Your task to perform on an android device: turn on priority inbox in the gmail app Image 0: 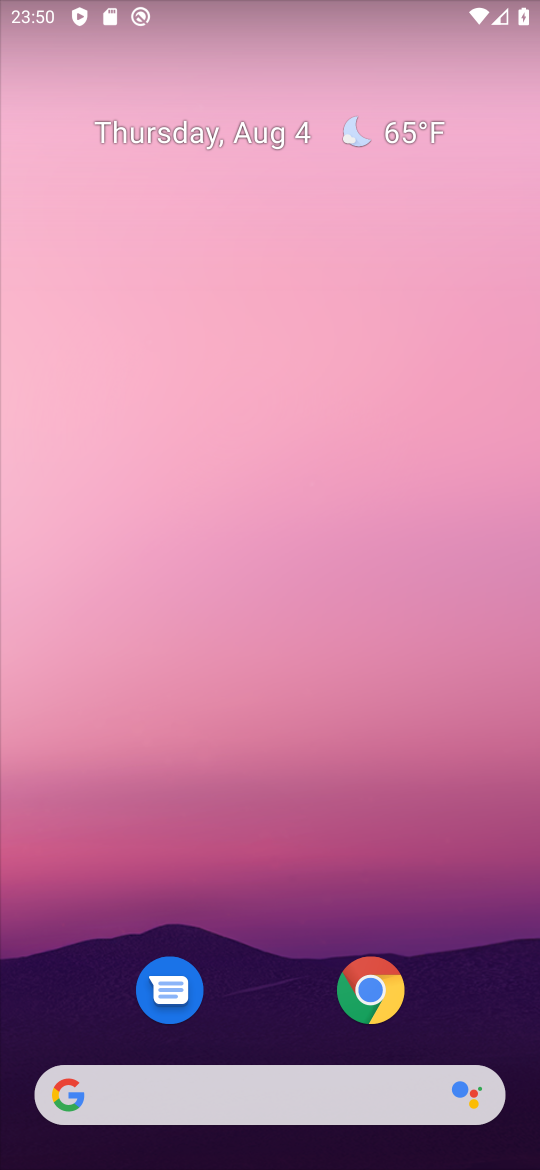
Step 0: drag from (507, 1009) to (363, 242)
Your task to perform on an android device: turn on priority inbox in the gmail app Image 1: 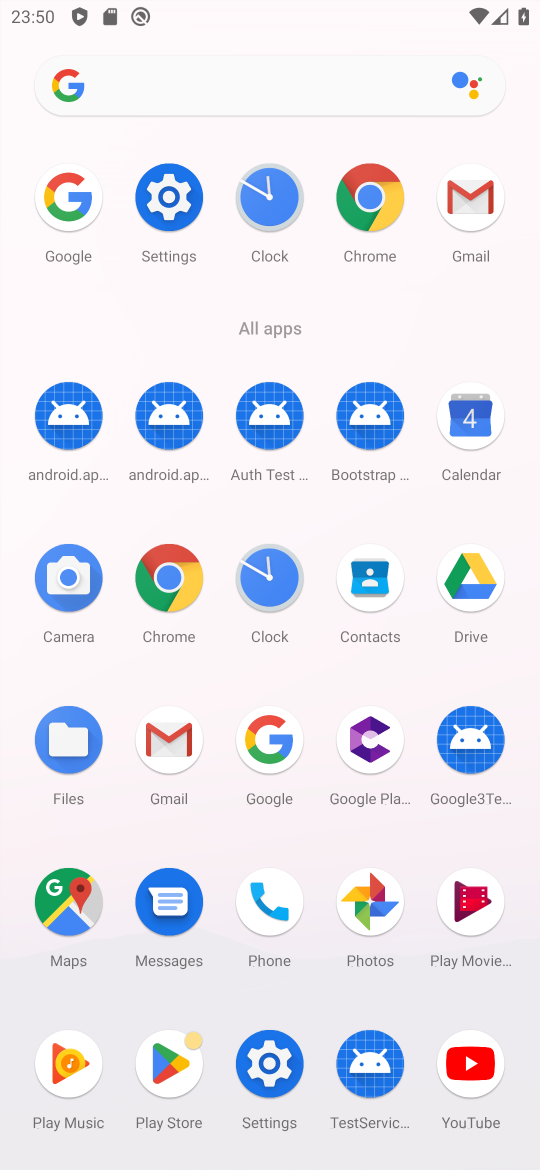
Step 1: click (465, 192)
Your task to perform on an android device: turn on priority inbox in the gmail app Image 2: 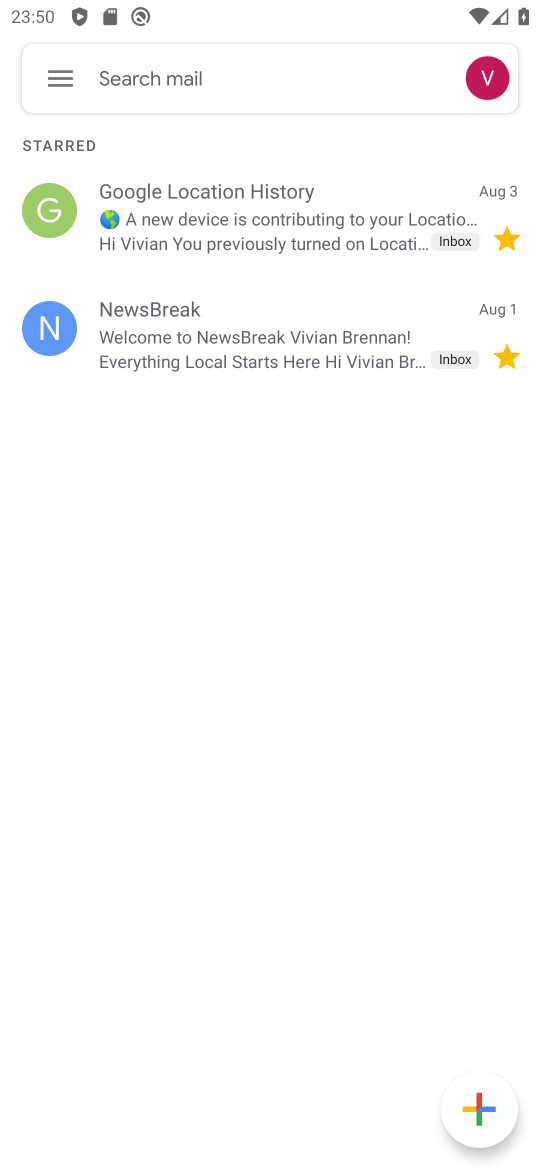
Step 2: click (48, 79)
Your task to perform on an android device: turn on priority inbox in the gmail app Image 3: 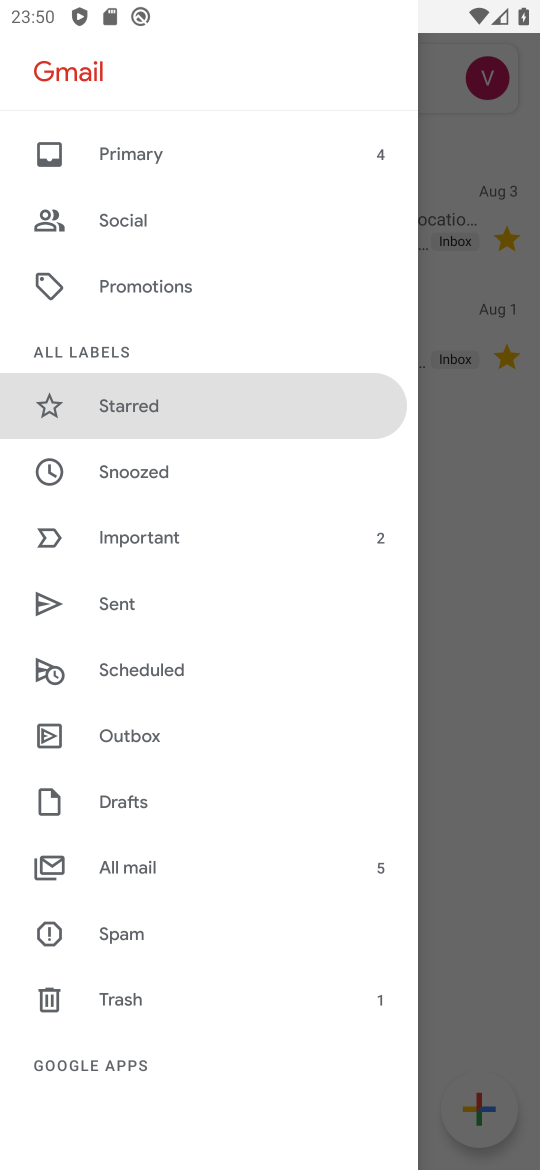
Step 3: drag from (165, 685) to (207, 196)
Your task to perform on an android device: turn on priority inbox in the gmail app Image 4: 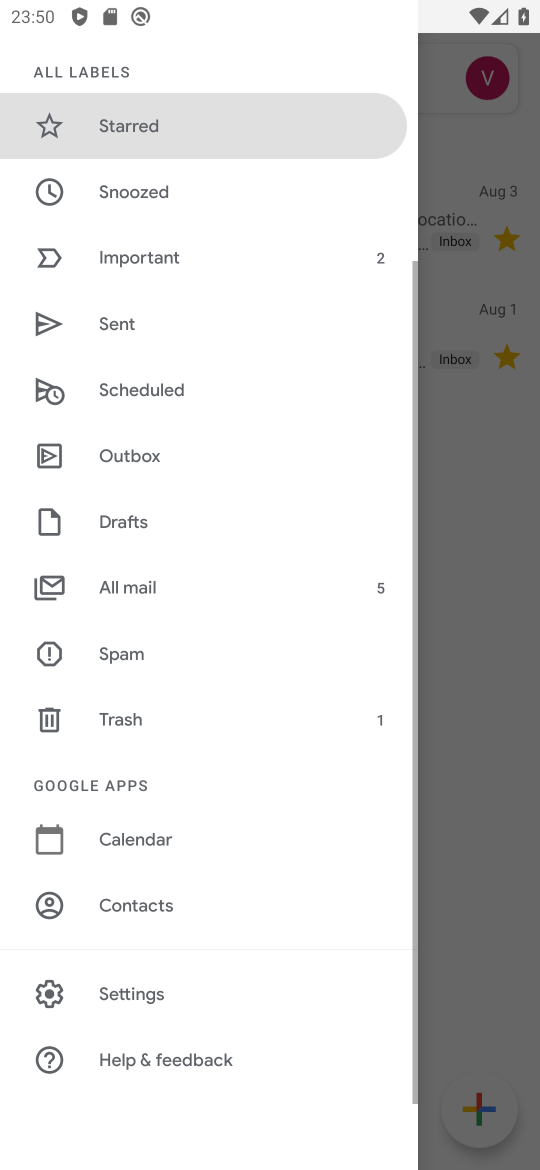
Step 4: click (175, 1011)
Your task to perform on an android device: turn on priority inbox in the gmail app Image 5: 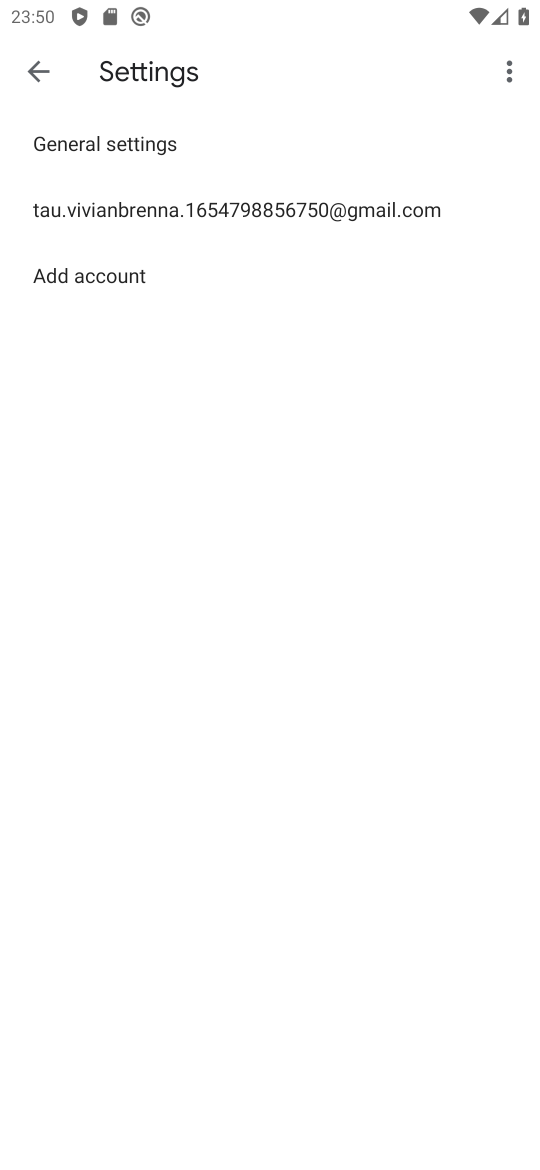
Step 5: click (252, 201)
Your task to perform on an android device: turn on priority inbox in the gmail app Image 6: 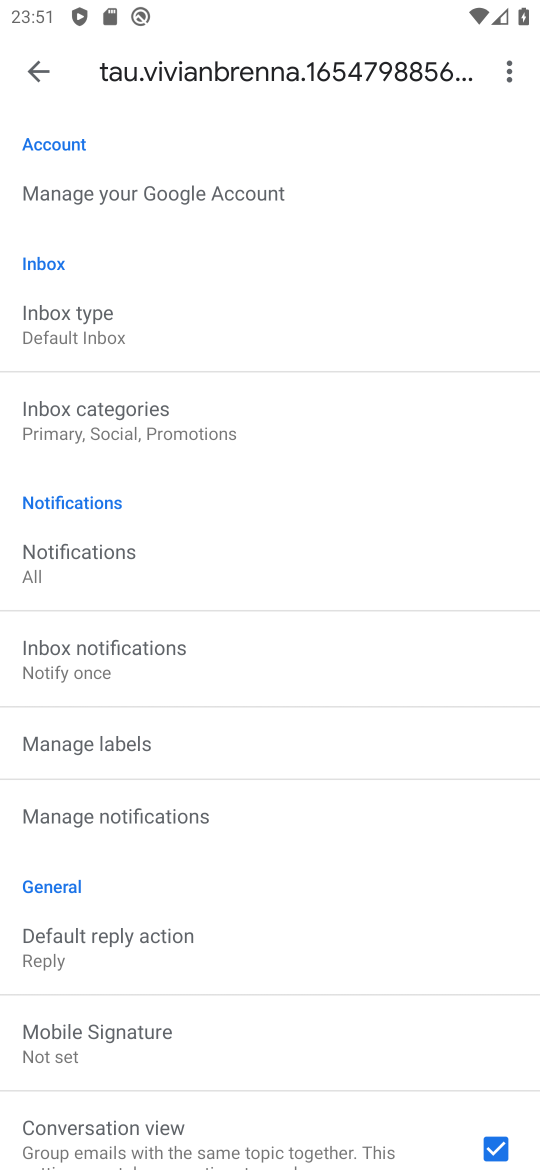
Step 6: click (158, 332)
Your task to perform on an android device: turn on priority inbox in the gmail app Image 7: 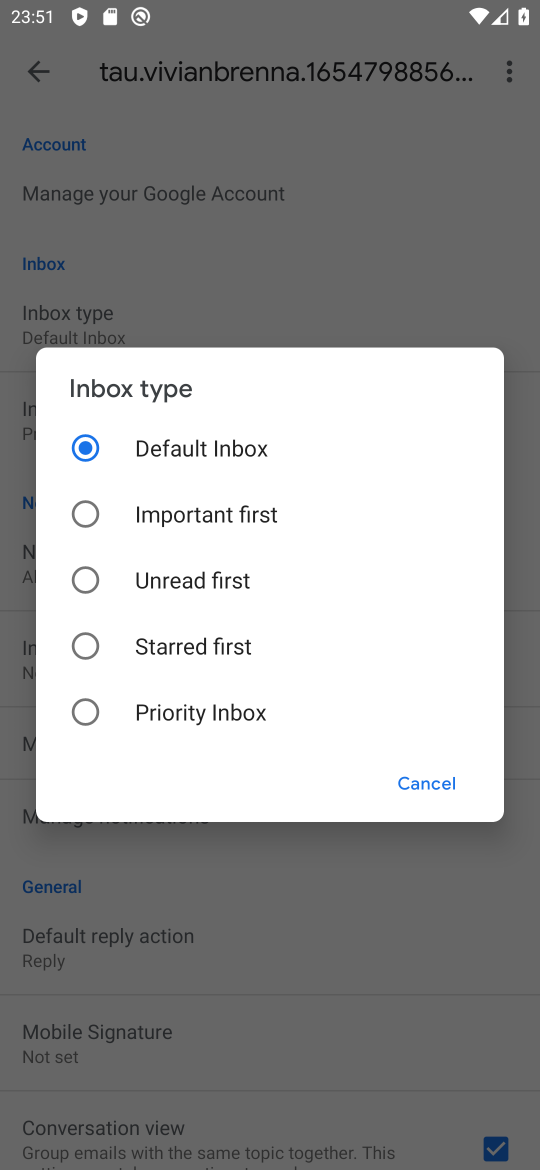
Step 7: click (192, 710)
Your task to perform on an android device: turn on priority inbox in the gmail app Image 8: 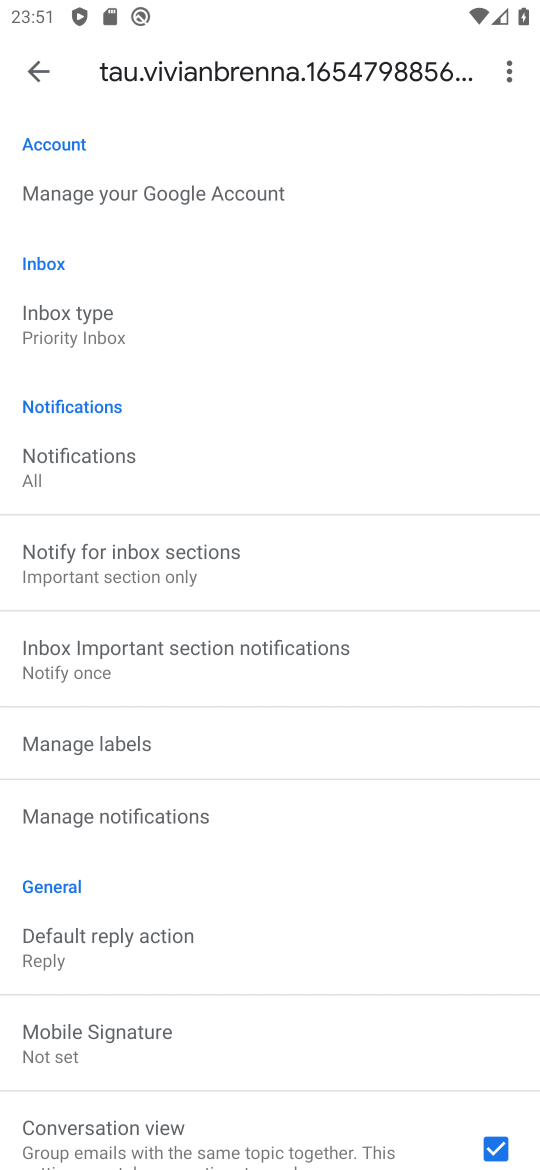
Step 8: task complete